Your task to perform on an android device: What's on my calendar today? Image 0: 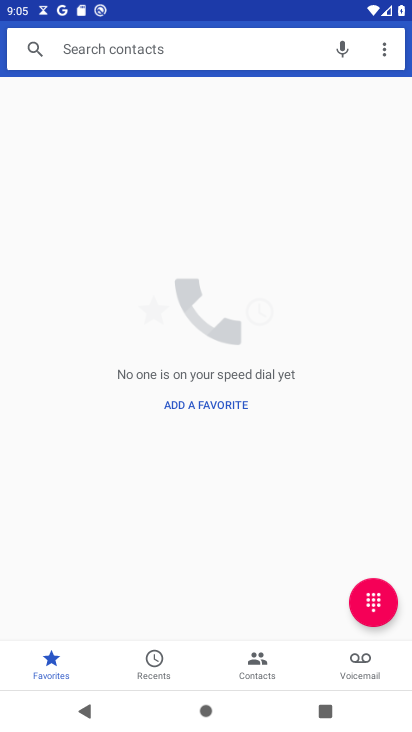
Step 0: press home button
Your task to perform on an android device: What's on my calendar today? Image 1: 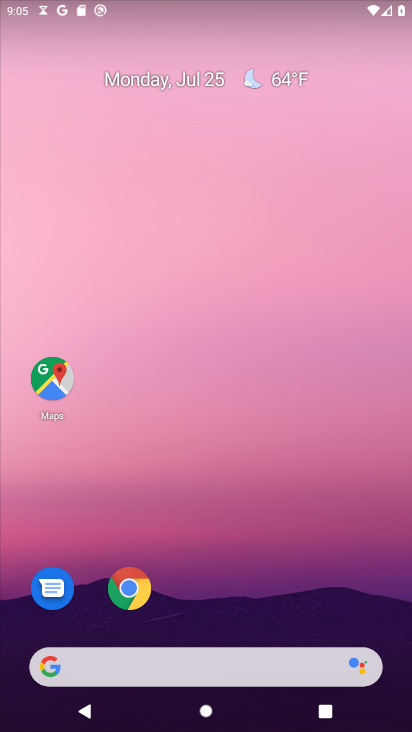
Step 1: drag from (197, 677) to (185, 228)
Your task to perform on an android device: What's on my calendar today? Image 2: 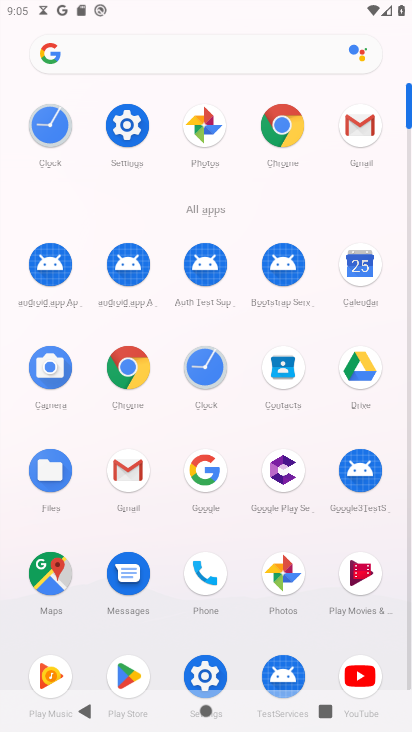
Step 2: click (349, 265)
Your task to perform on an android device: What's on my calendar today? Image 3: 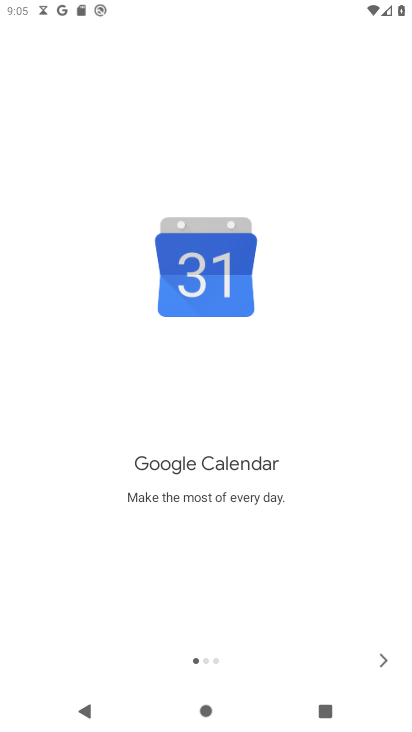
Step 3: click (377, 658)
Your task to perform on an android device: What's on my calendar today? Image 4: 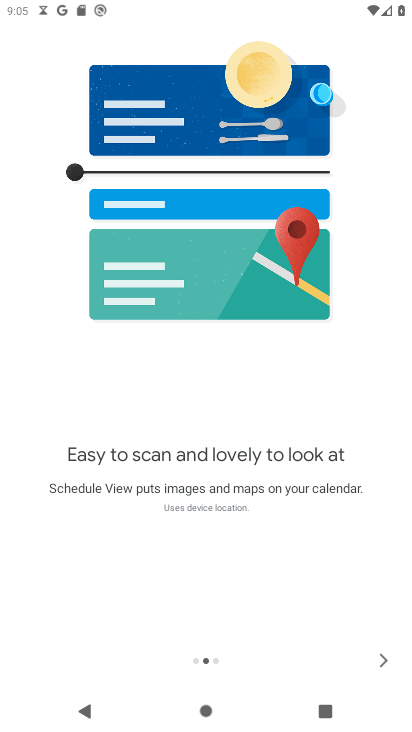
Step 4: click (377, 658)
Your task to perform on an android device: What's on my calendar today? Image 5: 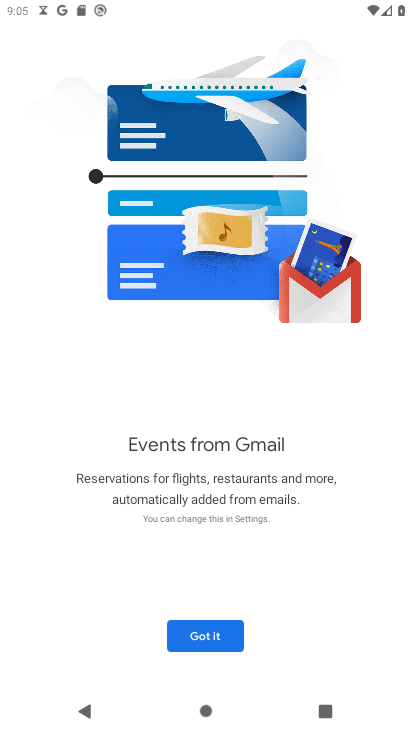
Step 5: click (377, 658)
Your task to perform on an android device: What's on my calendar today? Image 6: 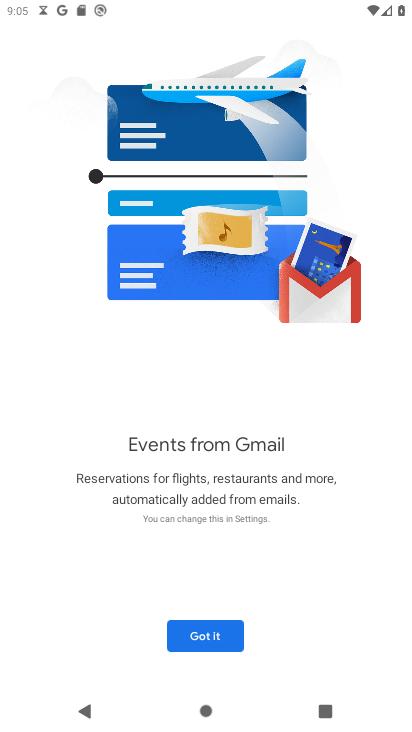
Step 6: click (377, 658)
Your task to perform on an android device: What's on my calendar today? Image 7: 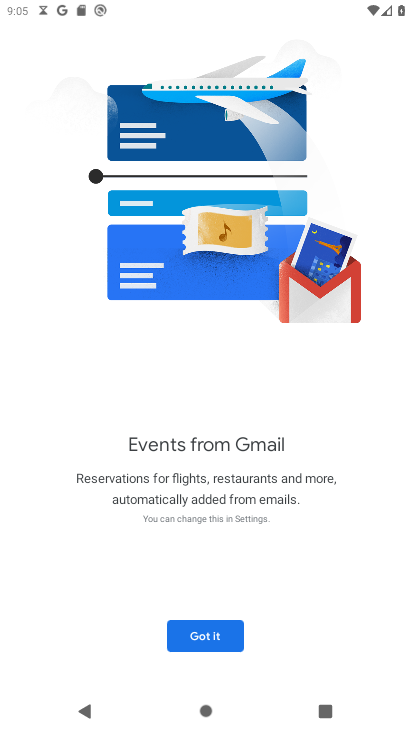
Step 7: click (222, 643)
Your task to perform on an android device: What's on my calendar today? Image 8: 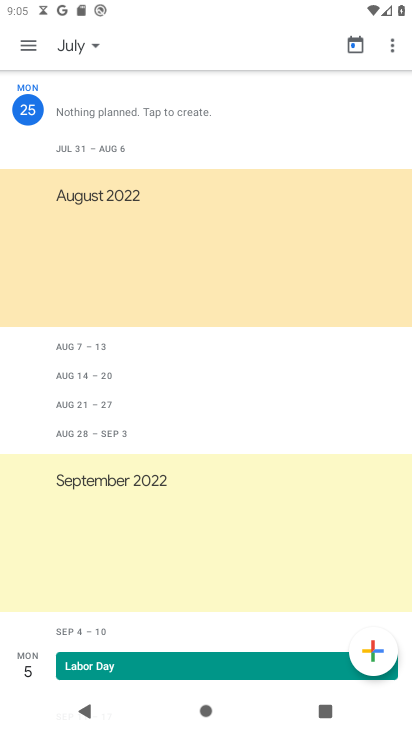
Step 8: task complete